Your task to perform on an android device: turn on sleep mode Image 0: 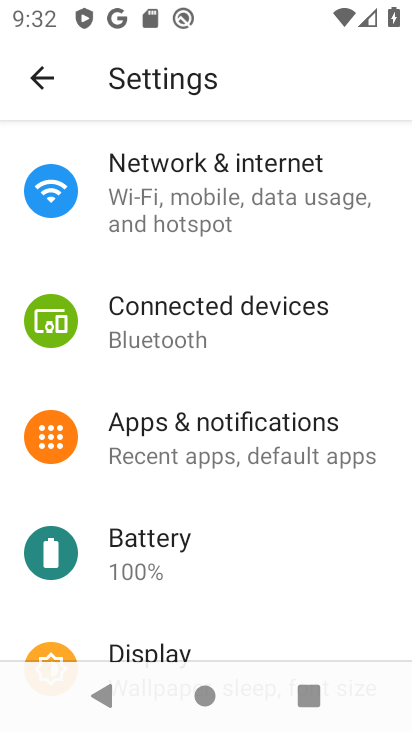
Step 0: drag from (275, 541) to (265, 322)
Your task to perform on an android device: turn on sleep mode Image 1: 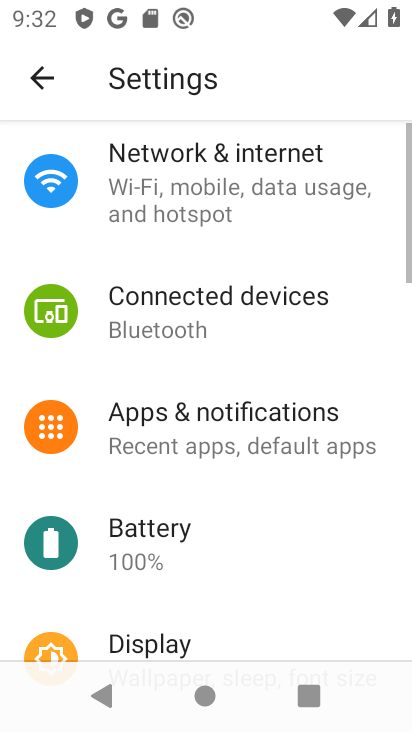
Step 1: drag from (280, 618) to (284, 381)
Your task to perform on an android device: turn on sleep mode Image 2: 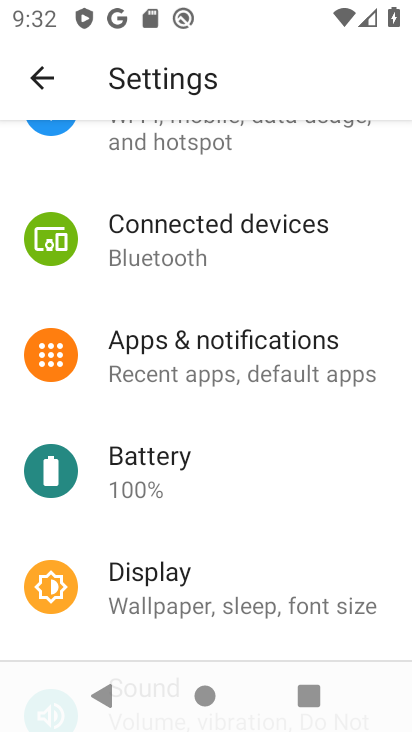
Step 2: click (178, 607)
Your task to perform on an android device: turn on sleep mode Image 3: 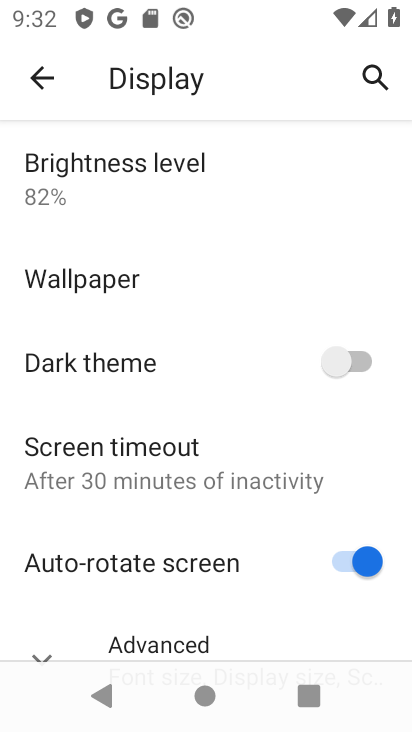
Step 3: drag from (256, 625) to (268, 410)
Your task to perform on an android device: turn on sleep mode Image 4: 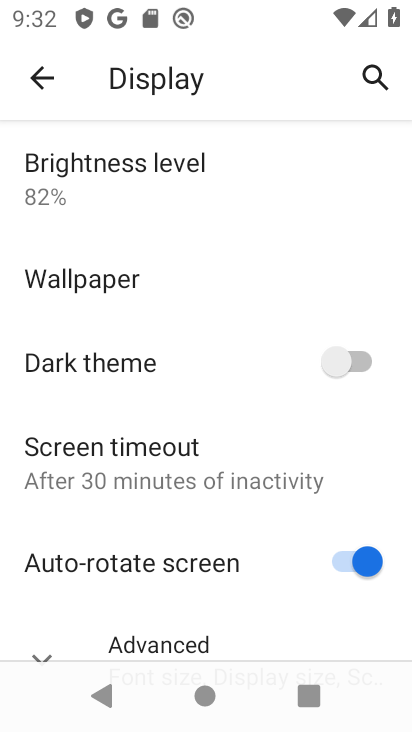
Step 4: click (126, 464)
Your task to perform on an android device: turn on sleep mode Image 5: 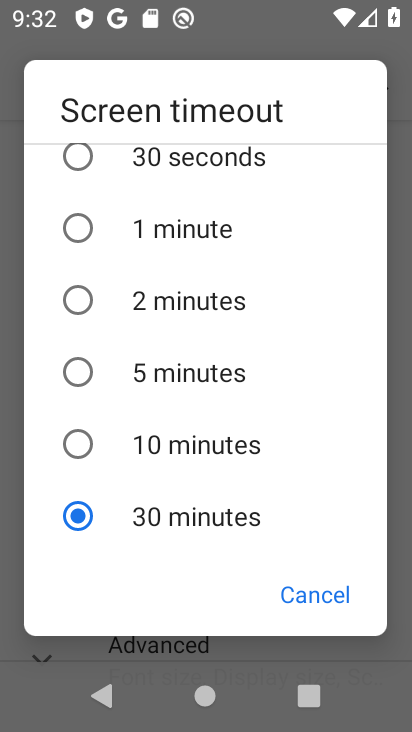
Step 5: task complete